Your task to perform on an android device: turn on the 24-hour format for clock Image 0: 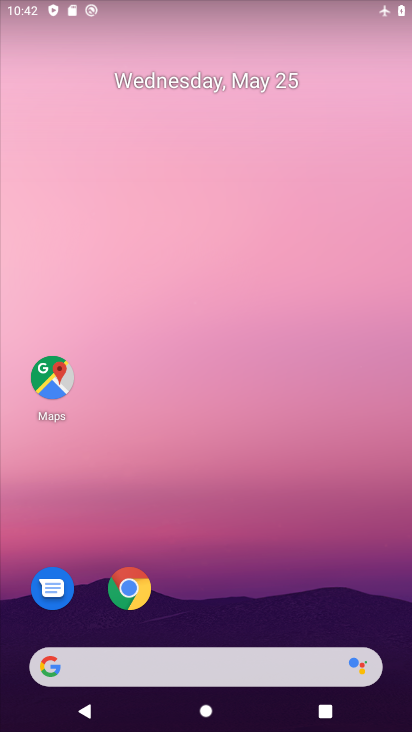
Step 0: drag from (343, 587) to (205, 171)
Your task to perform on an android device: turn on the 24-hour format for clock Image 1: 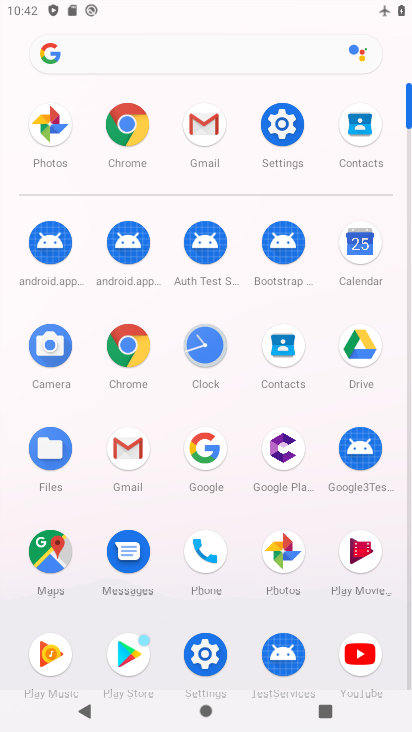
Step 1: click (206, 345)
Your task to perform on an android device: turn on the 24-hour format for clock Image 2: 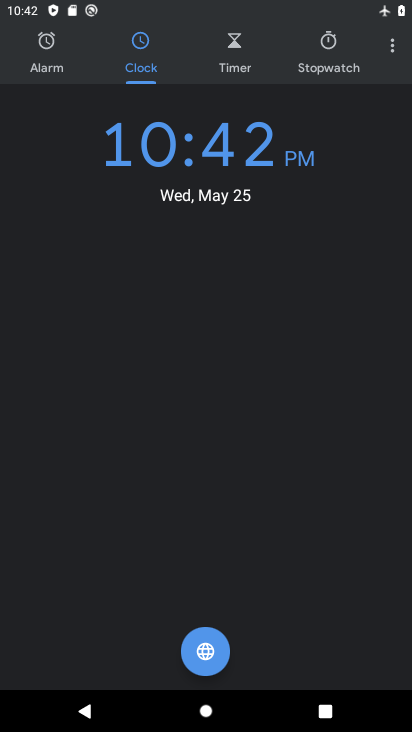
Step 2: click (376, 52)
Your task to perform on an android device: turn on the 24-hour format for clock Image 3: 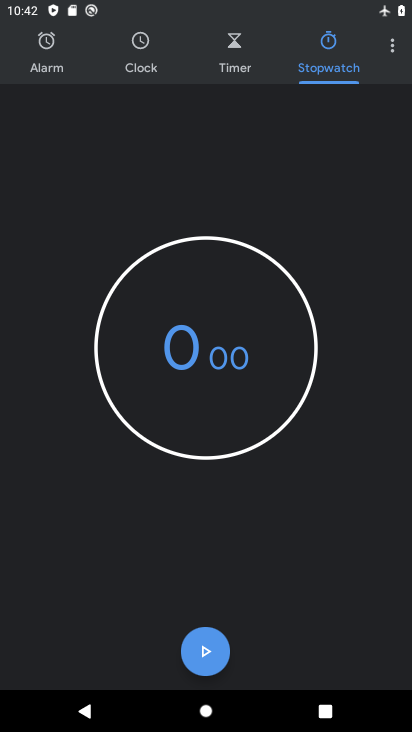
Step 3: click (393, 43)
Your task to perform on an android device: turn on the 24-hour format for clock Image 4: 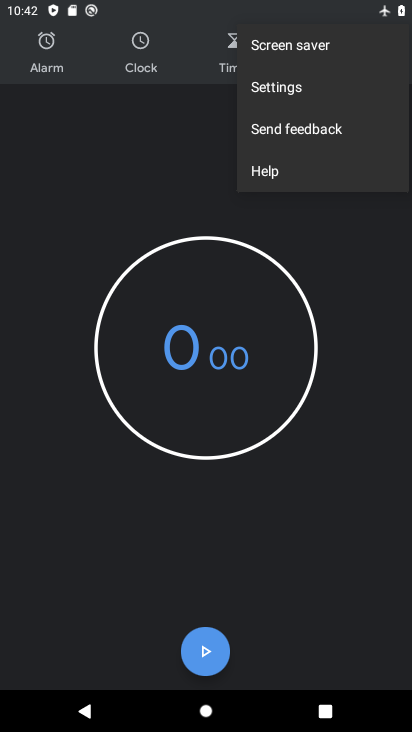
Step 4: click (299, 94)
Your task to perform on an android device: turn on the 24-hour format for clock Image 5: 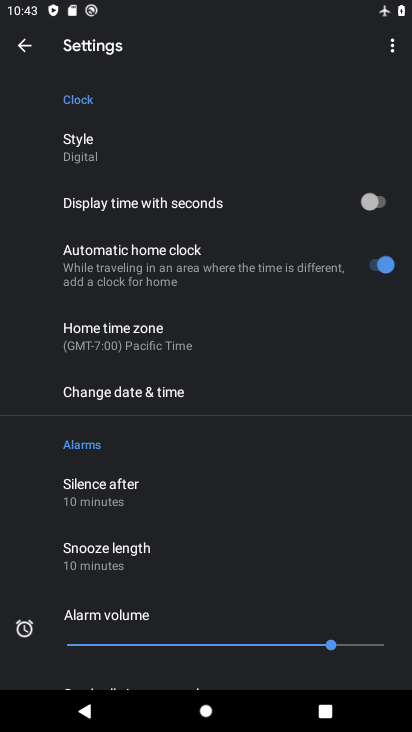
Step 5: click (159, 391)
Your task to perform on an android device: turn on the 24-hour format for clock Image 6: 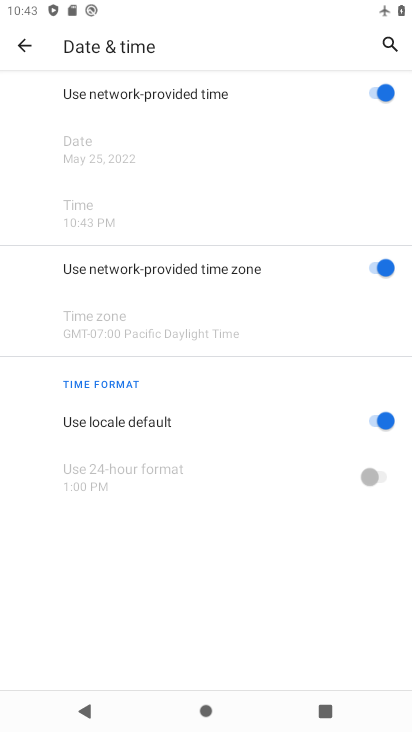
Step 6: click (383, 422)
Your task to perform on an android device: turn on the 24-hour format for clock Image 7: 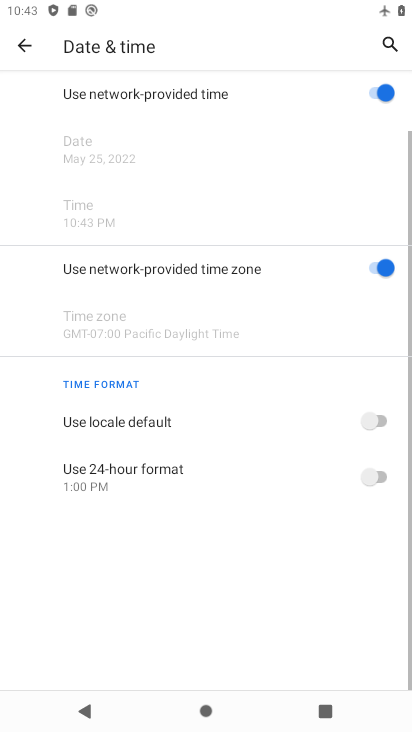
Step 7: click (366, 477)
Your task to perform on an android device: turn on the 24-hour format for clock Image 8: 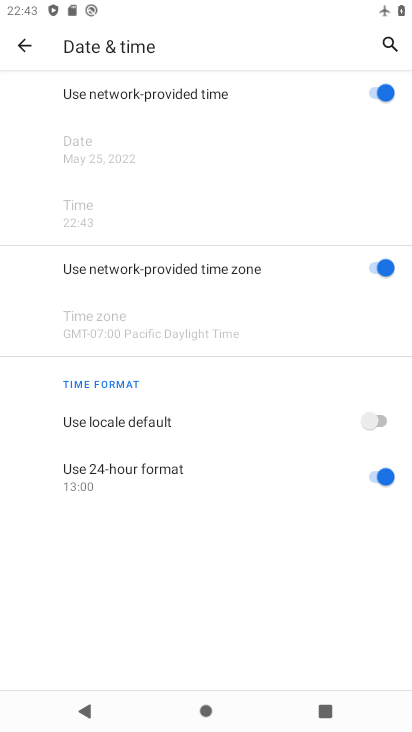
Step 8: task complete